Your task to perform on an android device: Find coffee shops on Maps Image 0: 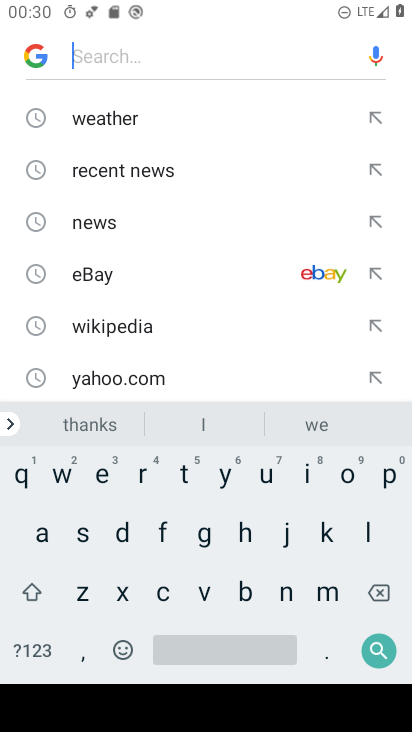
Step 0: press home button
Your task to perform on an android device: Find coffee shops on Maps Image 1: 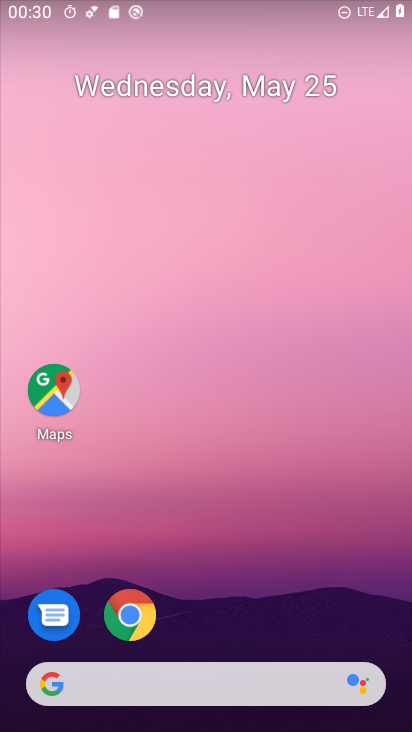
Step 1: drag from (255, 711) to (306, 96)
Your task to perform on an android device: Find coffee shops on Maps Image 2: 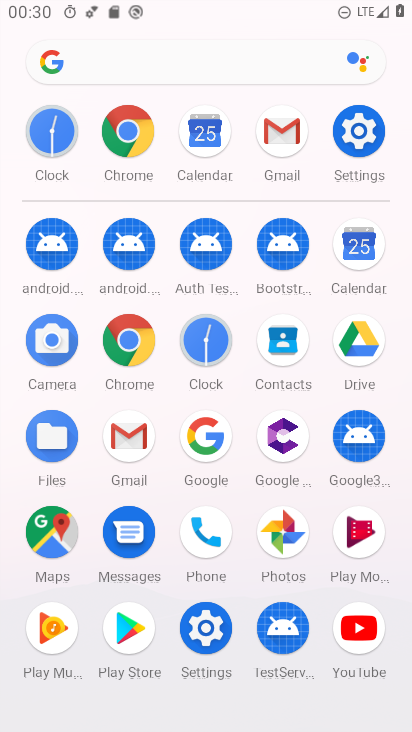
Step 2: click (52, 539)
Your task to perform on an android device: Find coffee shops on Maps Image 3: 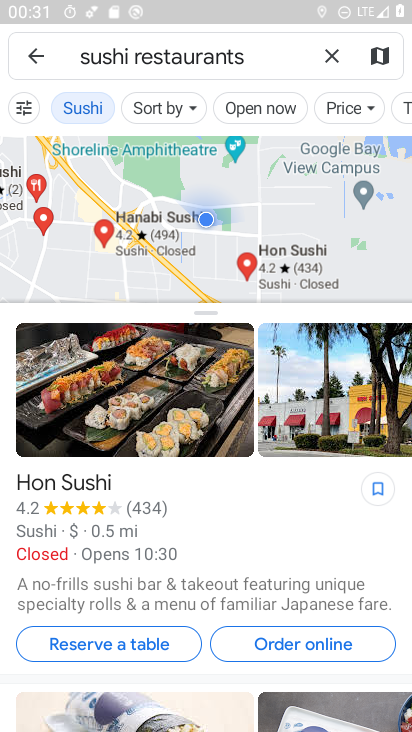
Step 3: click (336, 64)
Your task to perform on an android device: Find coffee shops on Maps Image 4: 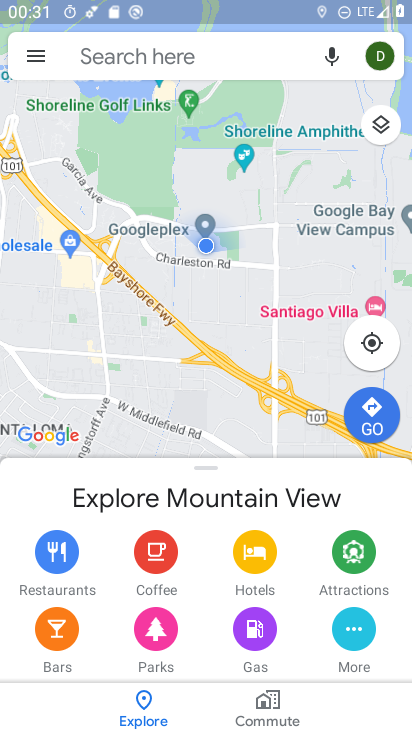
Step 4: click (183, 71)
Your task to perform on an android device: Find coffee shops on Maps Image 5: 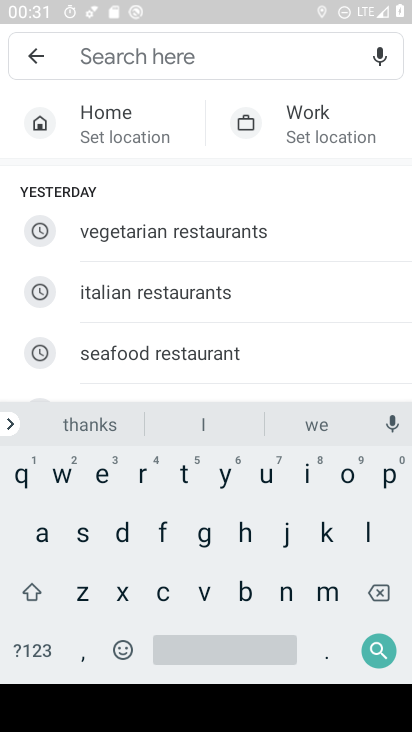
Step 5: click (160, 598)
Your task to perform on an android device: Find coffee shops on Maps Image 6: 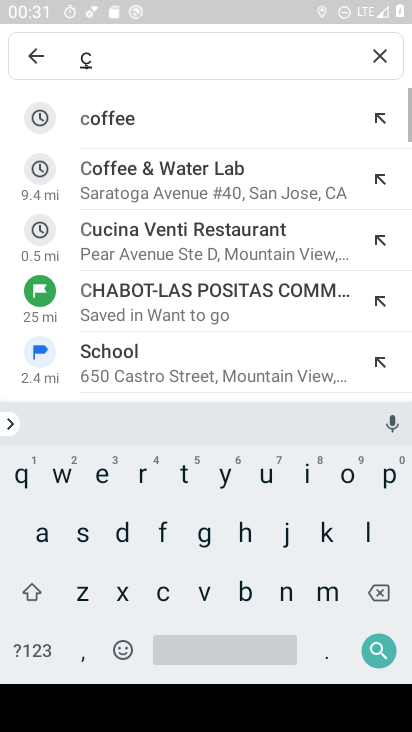
Step 6: click (159, 124)
Your task to perform on an android device: Find coffee shops on Maps Image 7: 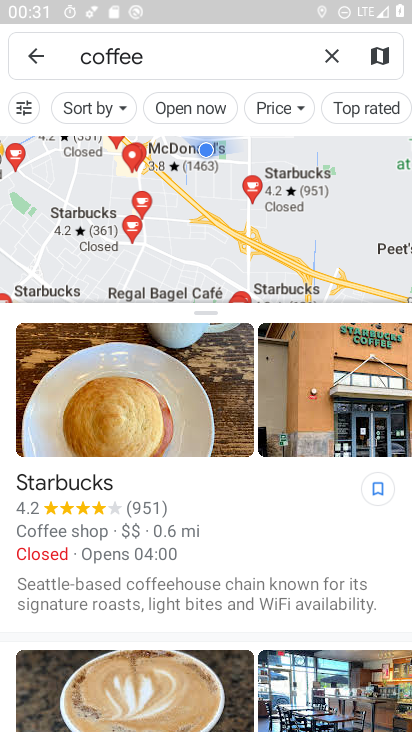
Step 7: click (133, 235)
Your task to perform on an android device: Find coffee shops on Maps Image 8: 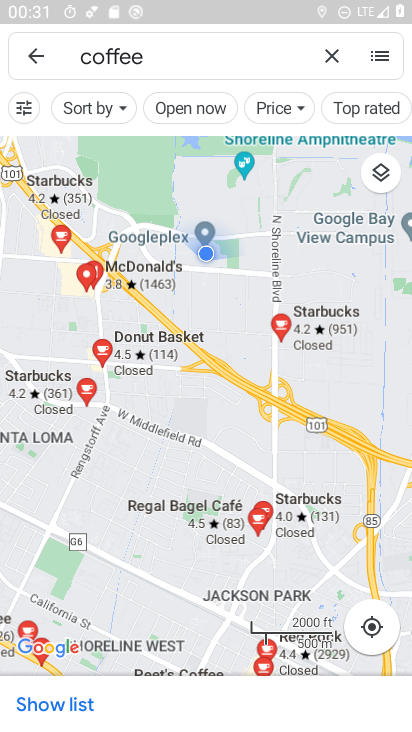
Step 8: task complete